Your task to perform on an android device: Open Maps and search for coffee Image 0: 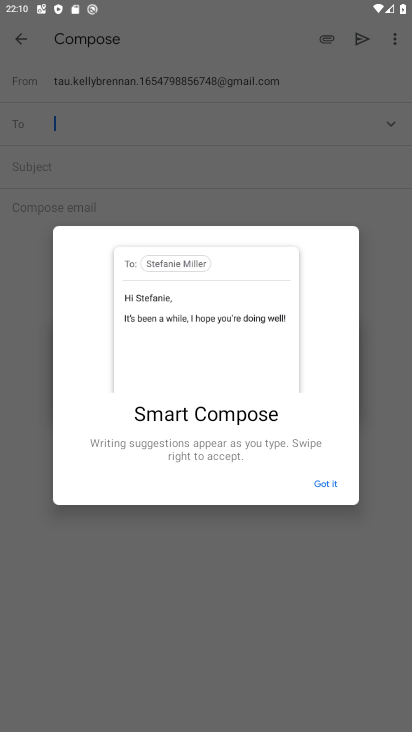
Step 0: press home button
Your task to perform on an android device: Open Maps and search for coffee Image 1: 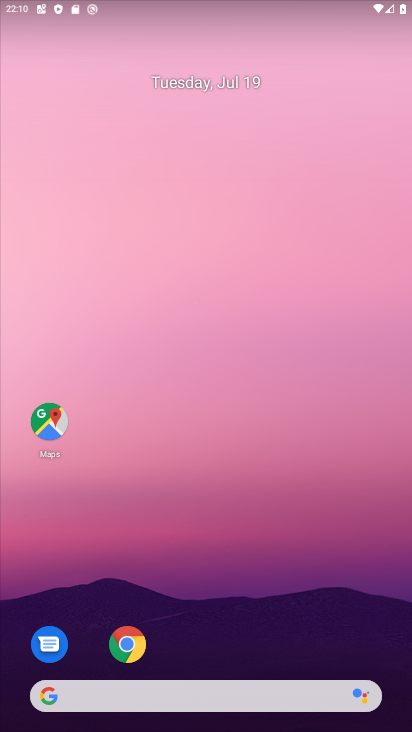
Step 1: drag from (243, 623) to (364, 22)
Your task to perform on an android device: Open Maps and search for coffee Image 2: 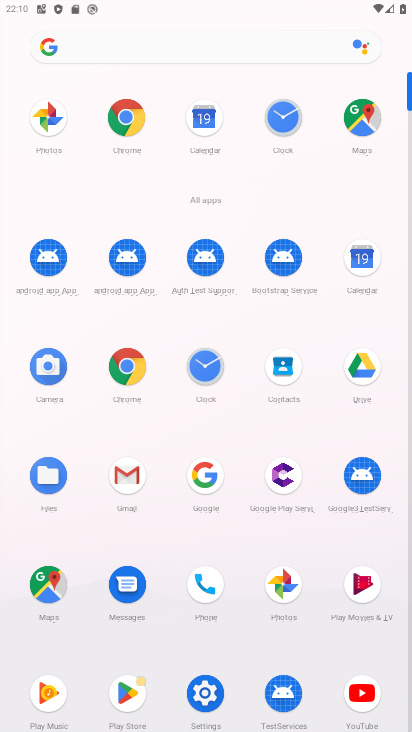
Step 2: click (51, 583)
Your task to perform on an android device: Open Maps and search for coffee Image 3: 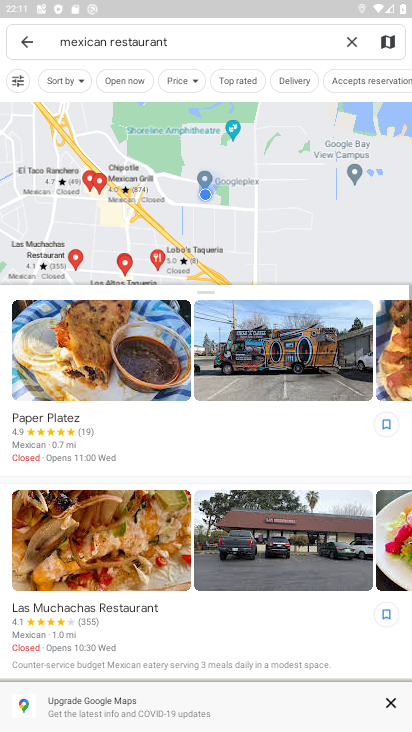
Step 3: click (351, 40)
Your task to perform on an android device: Open Maps and search for coffee Image 4: 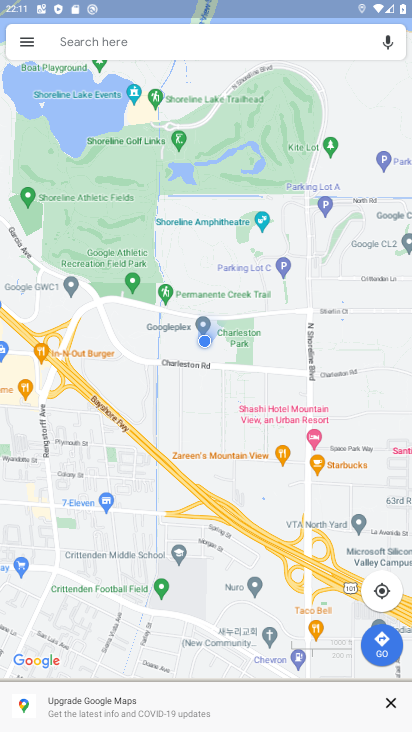
Step 4: click (118, 34)
Your task to perform on an android device: Open Maps and search for coffee Image 5: 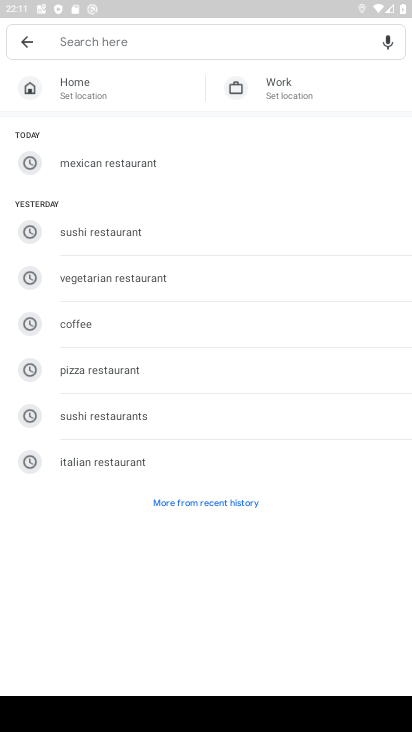
Step 5: type "coffee"
Your task to perform on an android device: Open Maps and search for coffee Image 6: 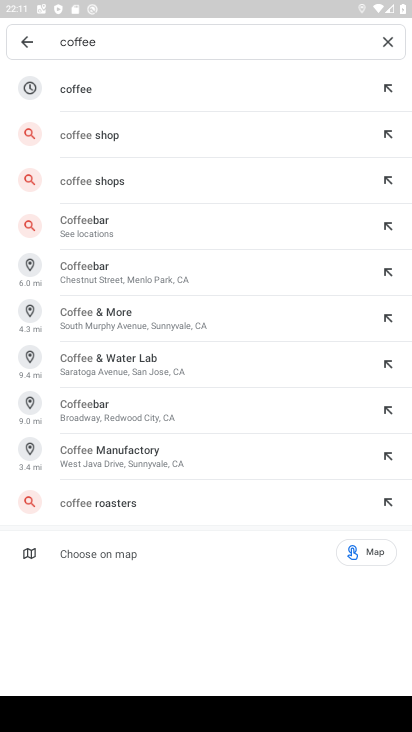
Step 6: click (68, 84)
Your task to perform on an android device: Open Maps and search for coffee Image 7: 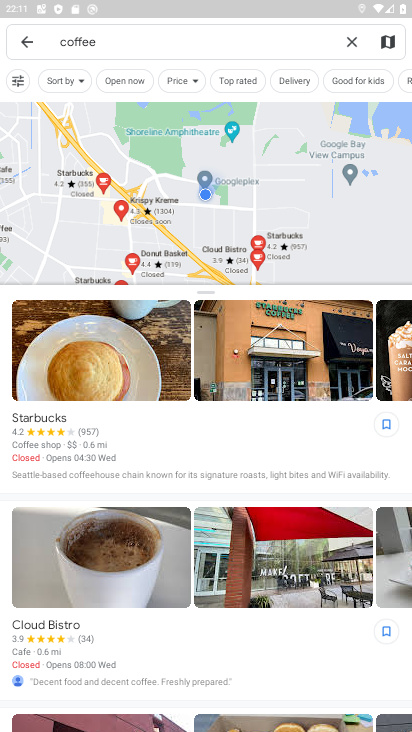
Step 7: task complete